Your task to perform on an android device: turn notification dots on Image 0: 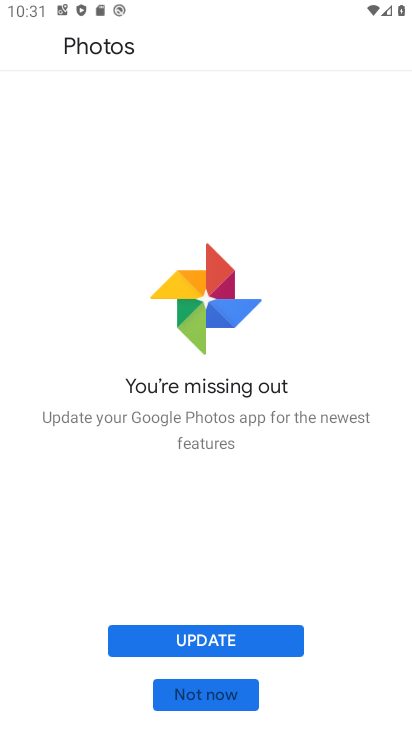
Step 0: press home button
Your task to perform on an android device: turn notification dots on Image 1: 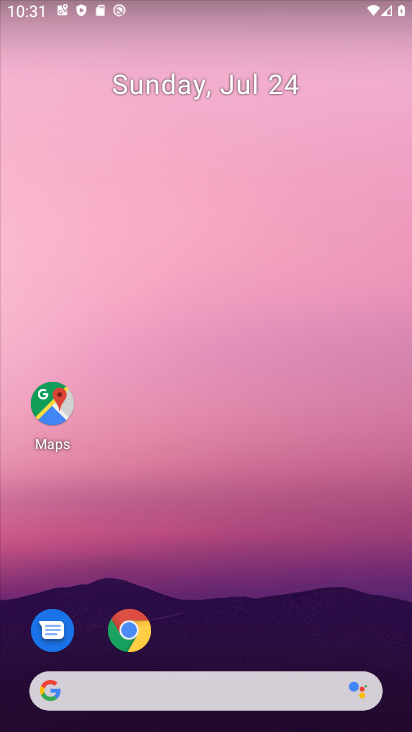
Step 1: drag from (238, 620) to (230, 166)
Your task to perform on an android device: turn notification dots on Image 2: 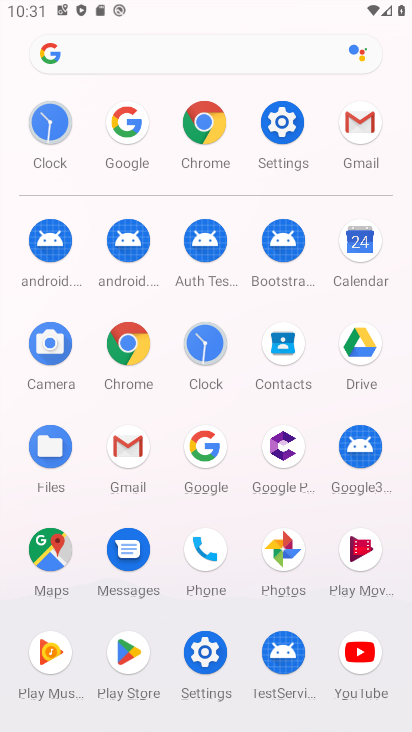
Step 2: click (264, 124)
Your task to perform on an android device: turn notification dots on Image 3: 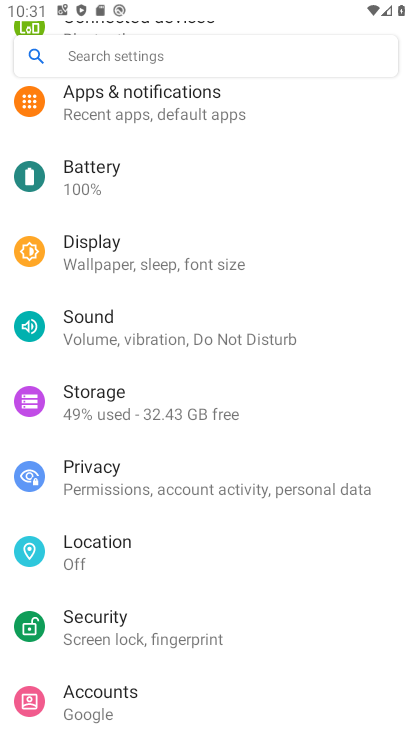
Step 3: click (220, 117)
Your task to perform on an android device: turn notification dots on Image 4: 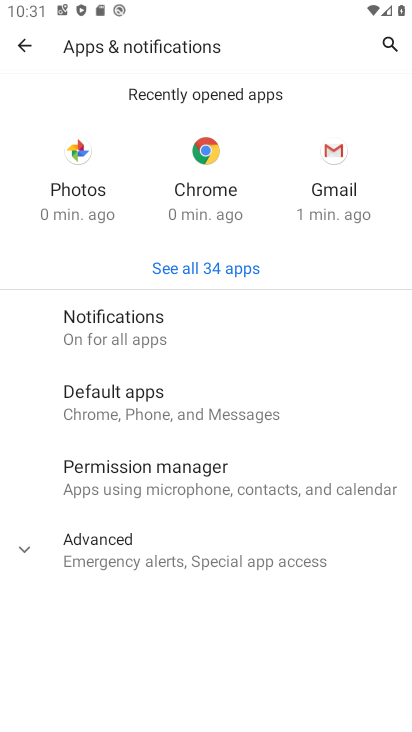
Step 4: click (157, 307)
Your task to perform on an android device: turn notification dots on Image 5: 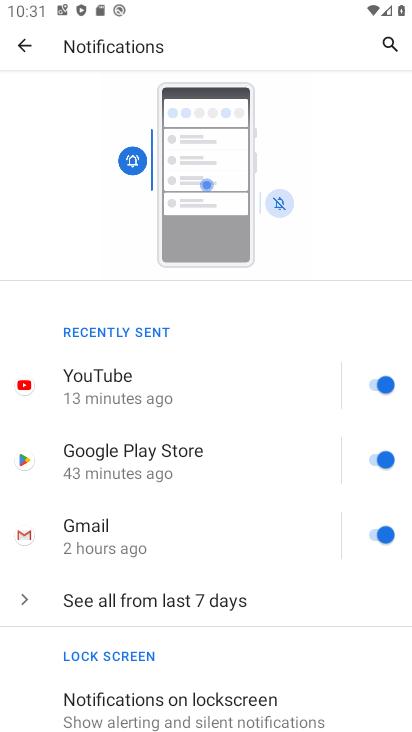
Step 5: drag from (180, 674) to (214, 353)
Your task to perform on an android device: turn notification dots on Image 6: 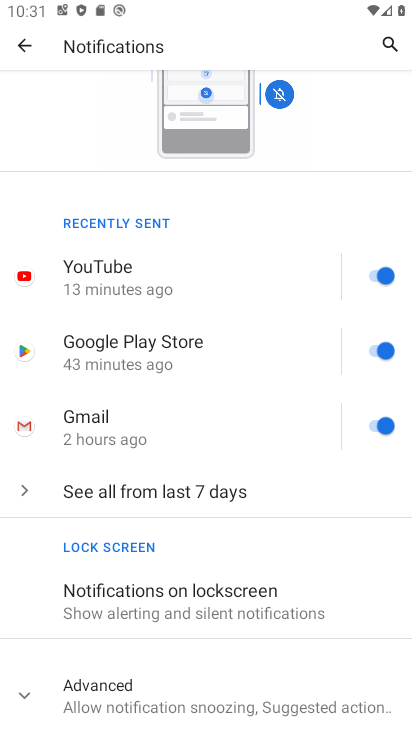
Step 6: click (186, 683)
Your task to perform on an android device: turn notification dots on Image 7: 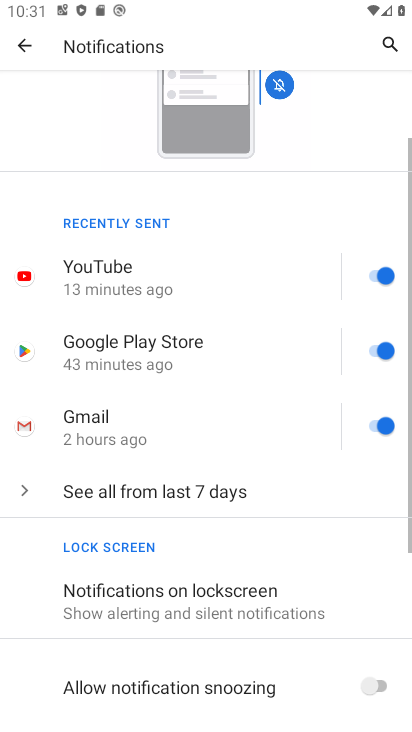
Step 7: drag from (204, 670) to (211, 319)
Your task to perform on an android device: turn notification dots on Image 8: 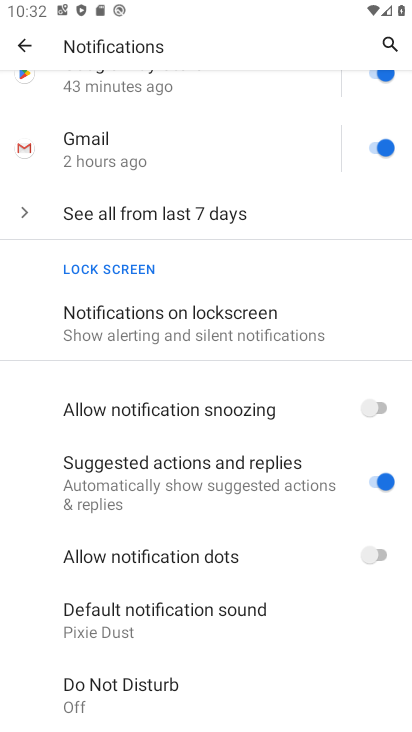
Step 8: click (378, 558)
Your task to perform on an android device: turn notification dots on Image 9: 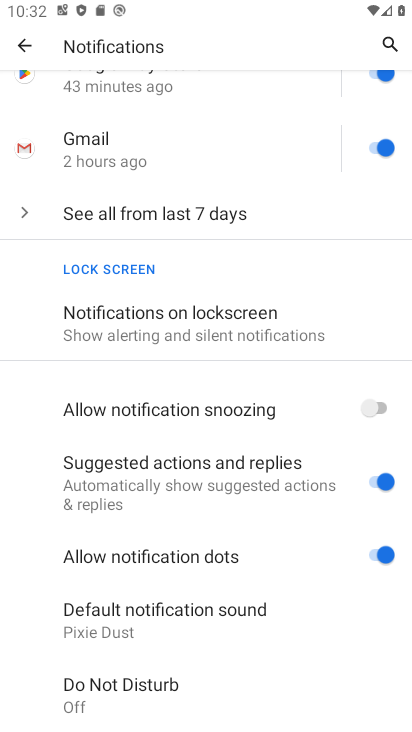
Step 9: task complete